Your task to perform on an android device: turn on notifications settings in the gmail app Image 0: 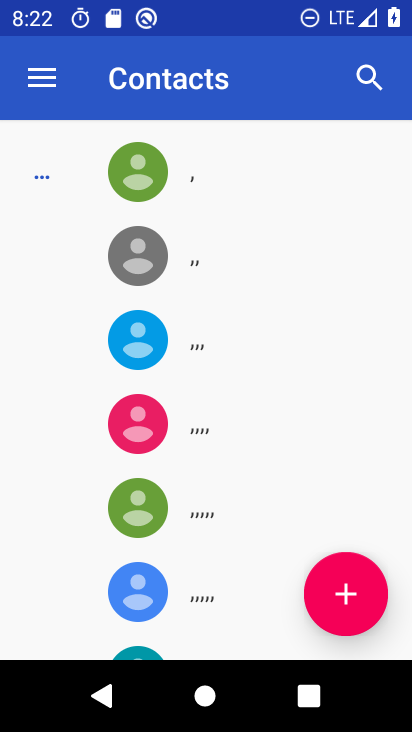
Step 0: press home button
Your task to perform on an android device: turn on notifications settings in the gmail app Image 1: 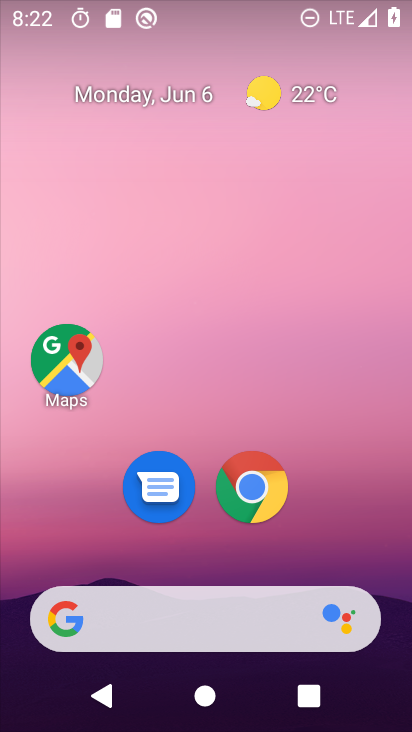
Step 1: drag from (384, 639) to (272, 15)
Your task to perform on an android device: turn on notifications settings in the gmail app Image 2: 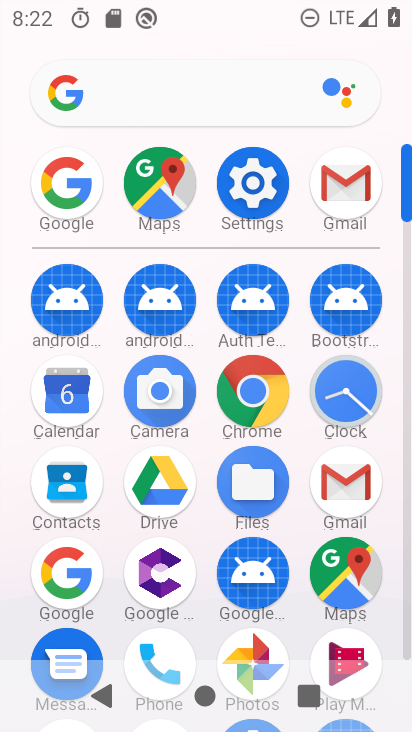
Step 2: click (328, 496)
Your task to perform on an android device: turn on notifications settings in the gmail app Image 3: 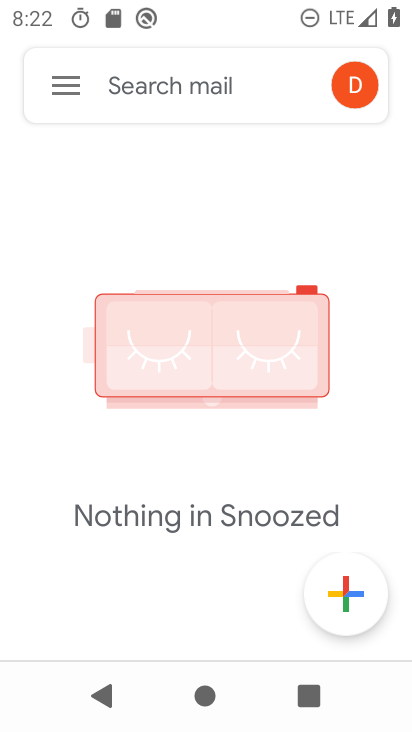
Step 3: click (65, 93)
Your task to perform on an android device: turn on notifications settings in the gmail app Image 4: 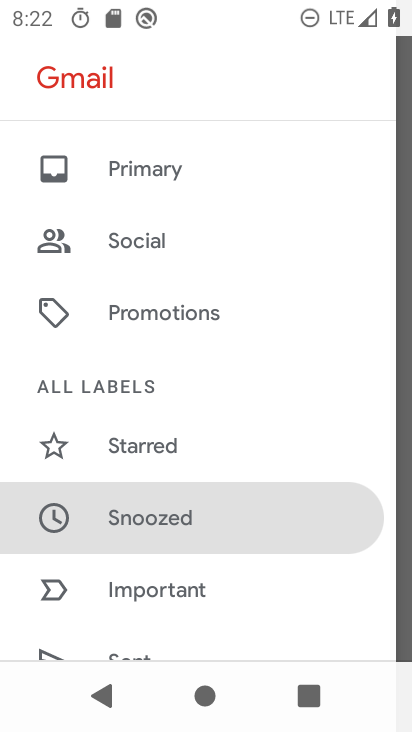
Step 4: drag from (180, 588) to (220, 98)
Your task to perform on an android device: turn on notifications settings in the gmail app Image 5: 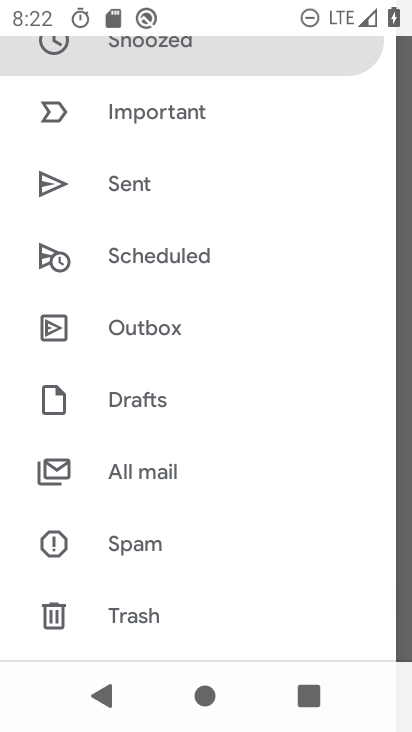
Step 5: drag from (212, 563) to (219, 53)
Your task to perform on an android device: turn on notifications settings in the gmail app Image 6: 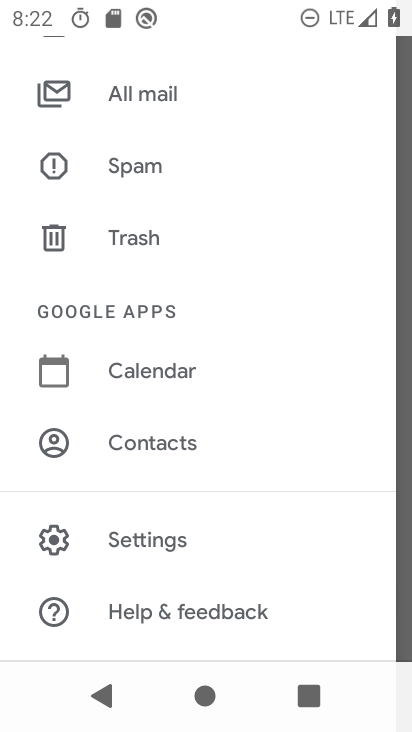
Step 6: click (150, 542)
Your task to perform on an android device: turn on notifications settings in the gmail app Image 7: 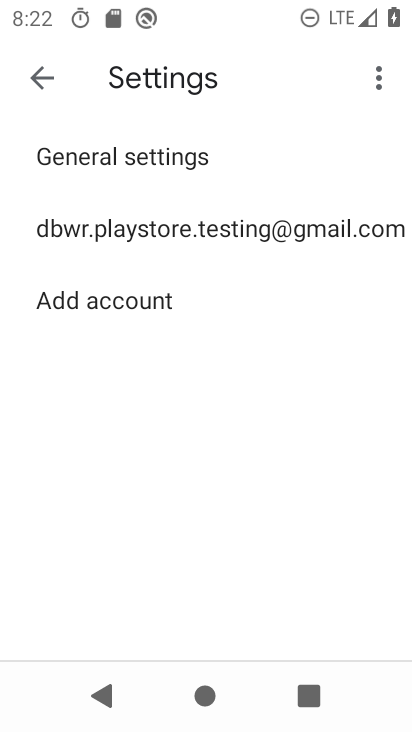
Step 7: click (255, 221)
Your task to perform on an android device: turn on notifications settings in the gmail app Image 8: 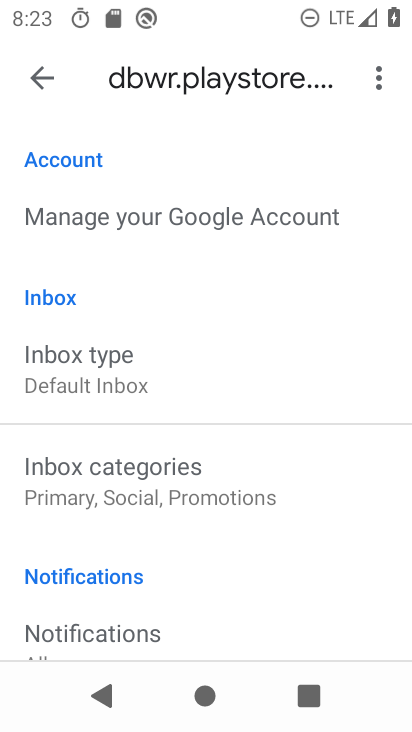
Step 8: click (100, 632)
Your task to perform on an android device: turn on notifications settings in the gmail app Image 9: 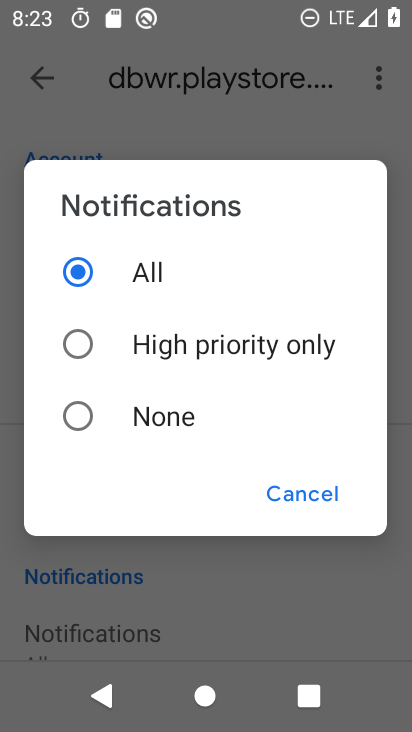
Step 9: task complete